Your task to perform on an android device: turn on translation in the chrome app Image 0: 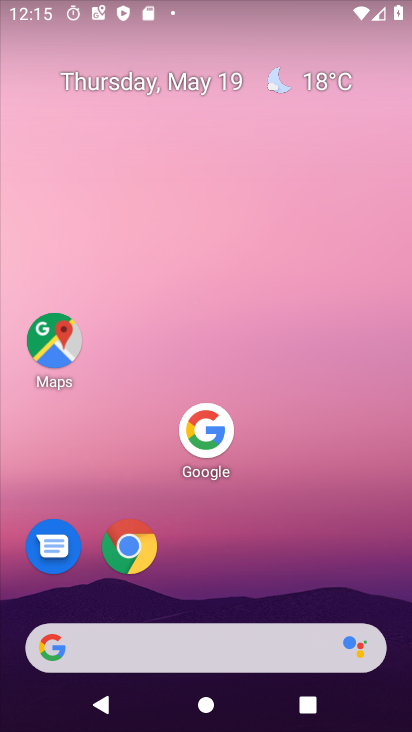
Step 0: click (125, 548)
Your task to perform on an android device: turn on translation in the chrome app Image 1: 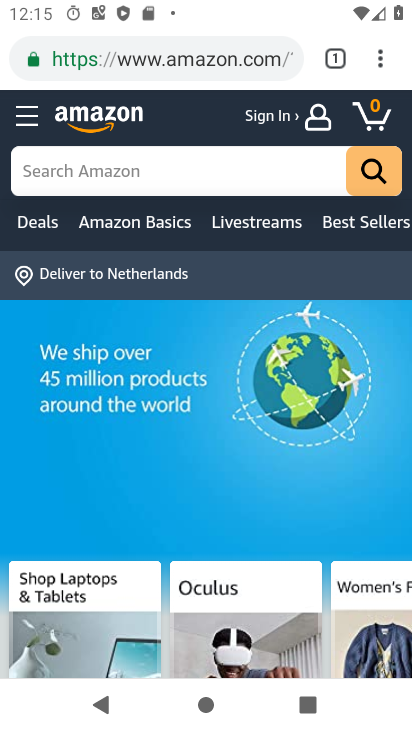
Step 1: click (371, 54)
Your task to perform on an android device: turn on translation in the chrome app Image 2: 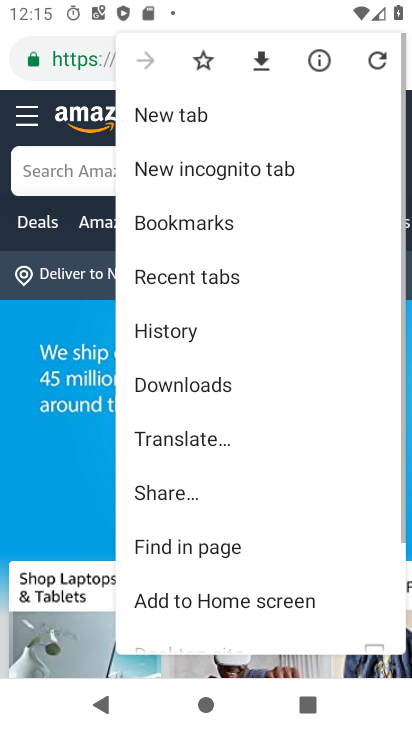
Step 2: drag from (305, 446) to (298, 139)
Your task to perform on an android device: turn on translation in the chrome app Image 3: 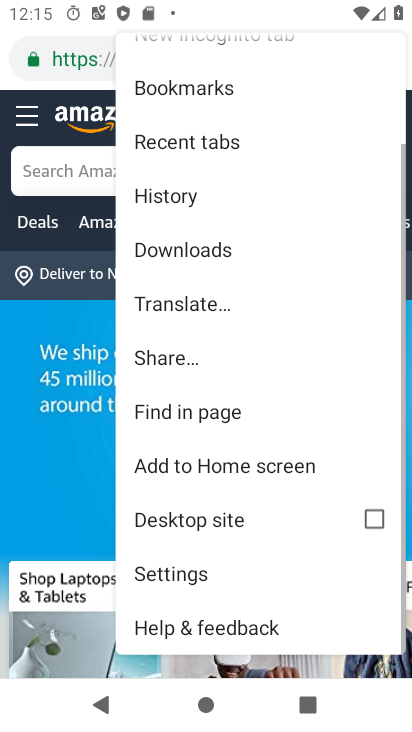
Step 3: click (212, 583)
Your task to perform on an android device: turn on translation in the chrome app Image 4: 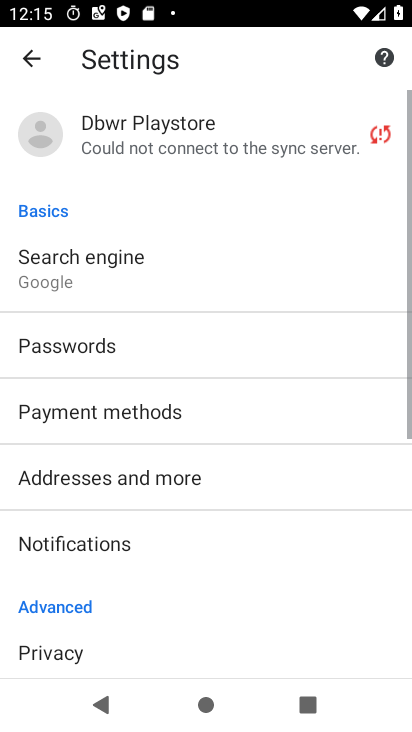
Step 4: drag from (177, 449) to (157, 65)
Your task to perform on an android device: turn on translation in the chrome app Image 5: 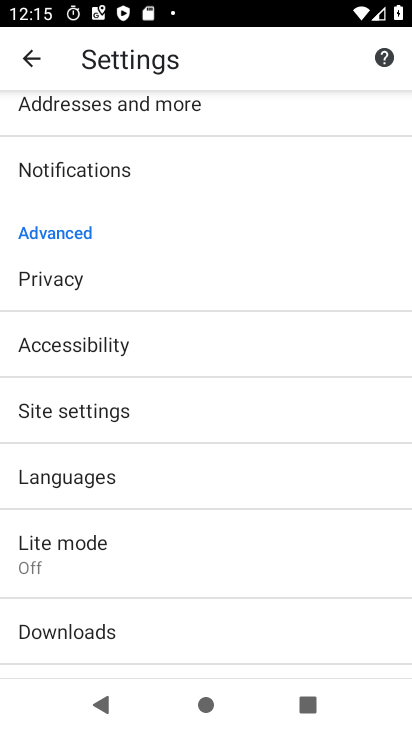
Step 5: click (75, 447)
Your task to perform on an android device: turn on translation in the chrome app Image 6: 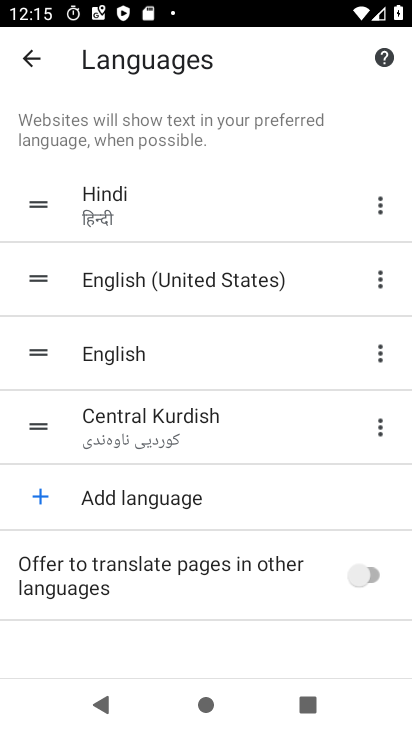
Step 6: click (370, 572)
Your task to perform on an android device: turn on translation in the chrome app Image 7: 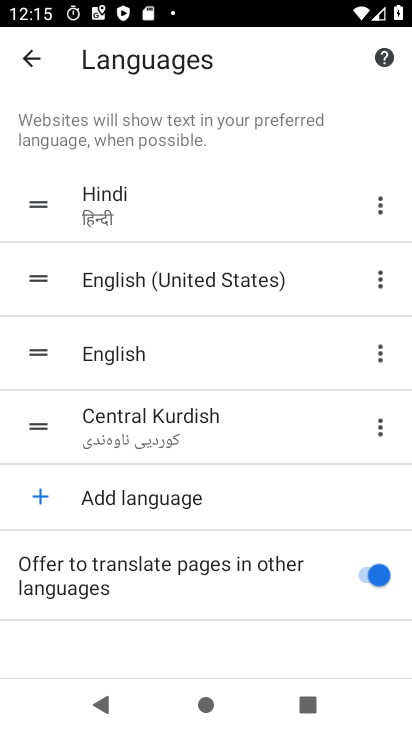
Step 7: task complete